Your task to perform on an android device: Go to Wikipedia Image 0: 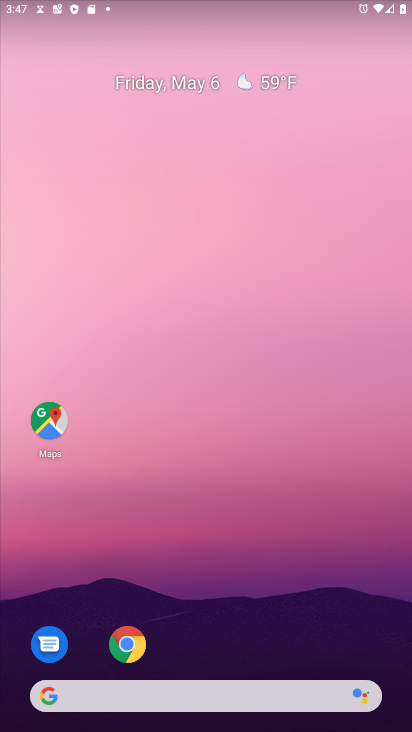
Step 0: click (129, 642)
Your task to perform on an android device: Go to Wikipedia Image 1: 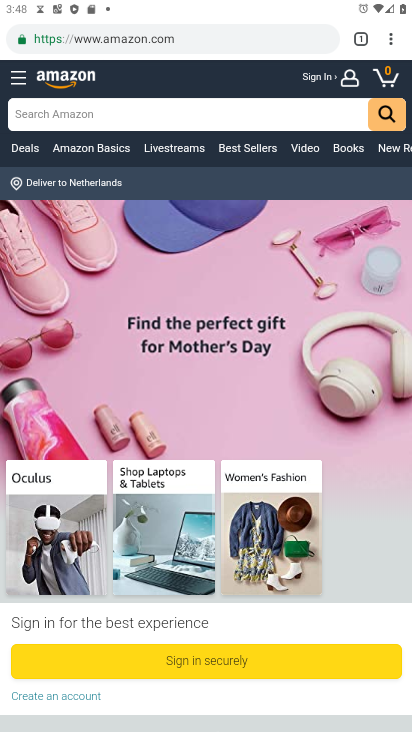
Step 1: click (272, 30)
Your task to perform on an android device: Go to Wikipedia Image 2: 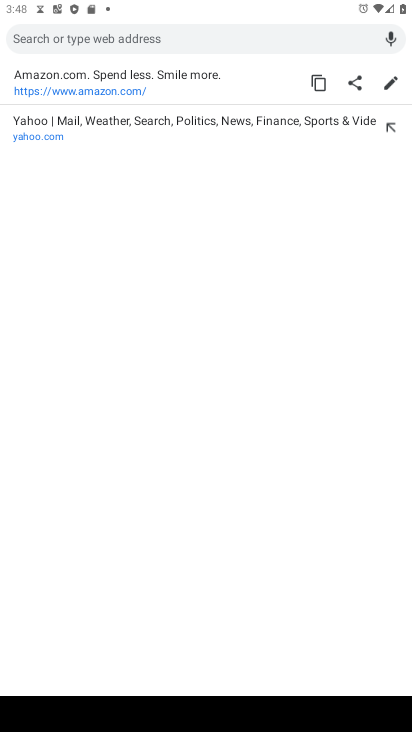
Step 2: type "Wikipedia"
Your task to perform on an android device: Go to Wikipedia Image 3: 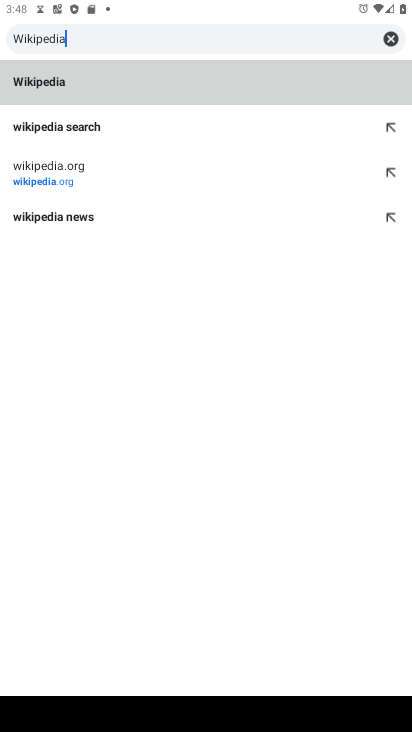
Step 3: type ""
Your task to perform on an android device: Go to Wikipedia Image 4: 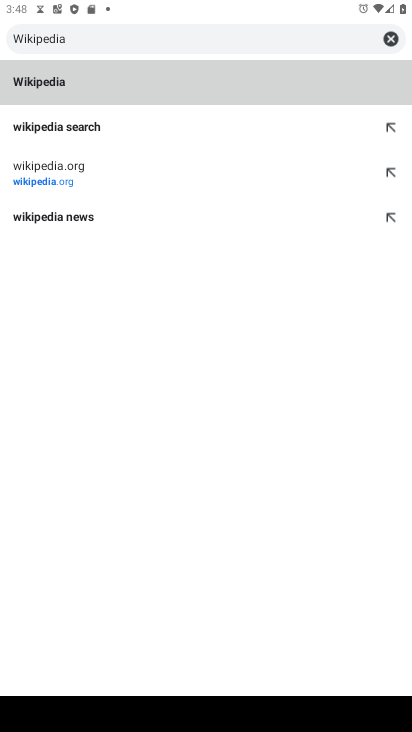
Step 4: click (63, 83)
Your task to perform on an android device: Go to Wikipedia Image 5: 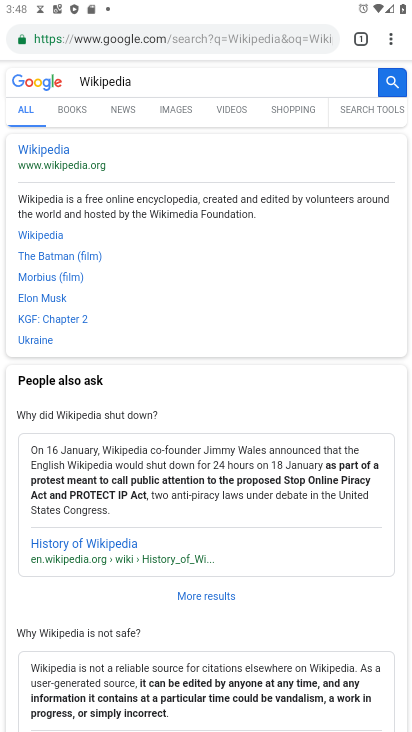
Step 5: click (45, 162)
Your task to perform on an android device: Go to Wikipedia Image 6: 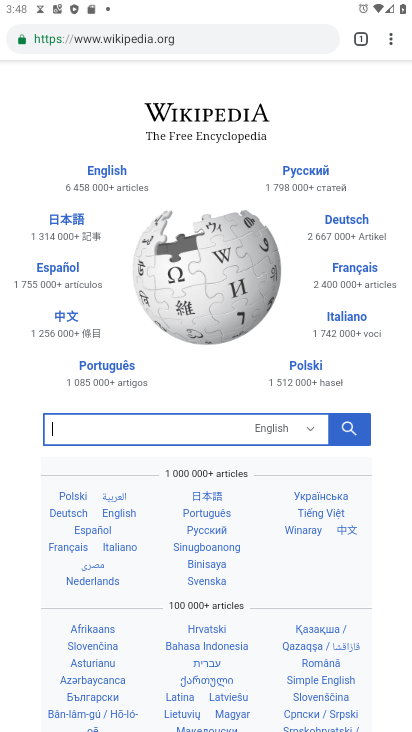
Step 6: task complete